Your task to perform on an android device: Go to network settings Image 0: 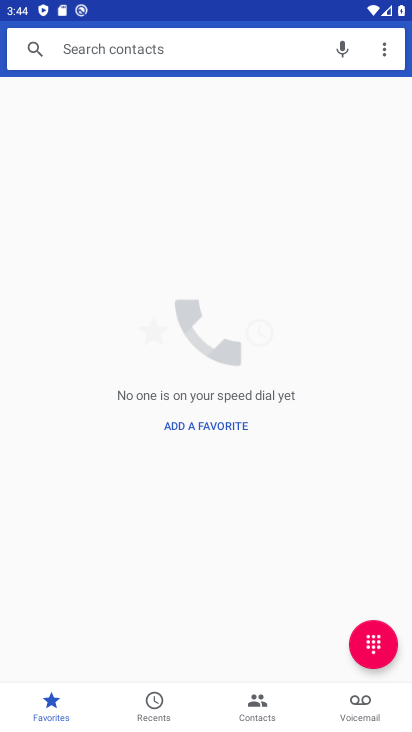
Step 0: press home button
Your task to perform on an android device: Go to network settings Image 1: 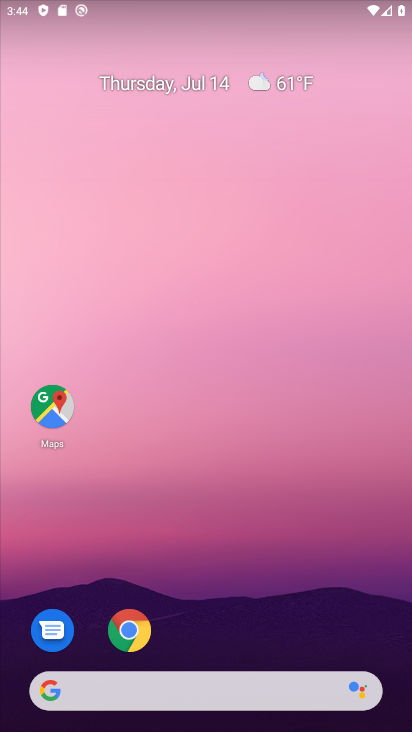
Step 1: drag from (256, 626) to (175, 60)
Your task to perform on an android device: Go to network settings Image 2: 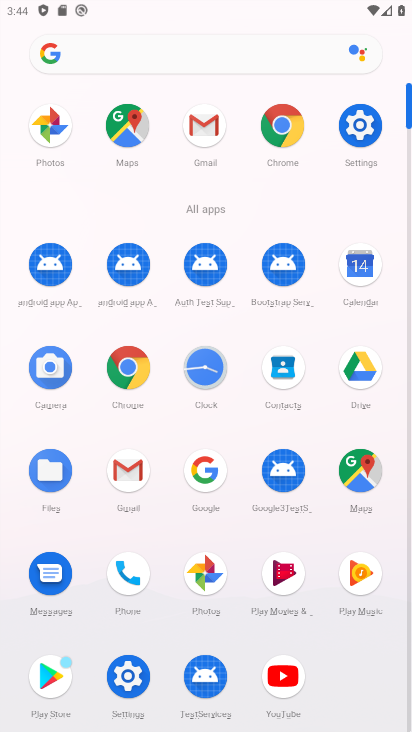
Step 2: click (369, 131)
Your task to perform on an android device: Go to network settings Image 3: 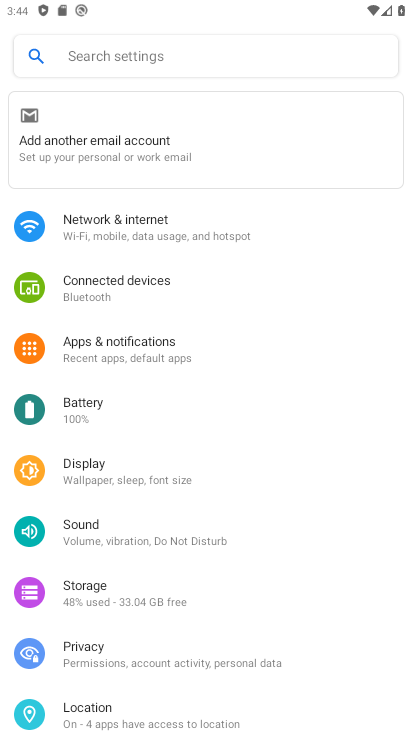
Step 3: click (213, 224)
Your task to perform on an android device: Go to network settings Image 4: 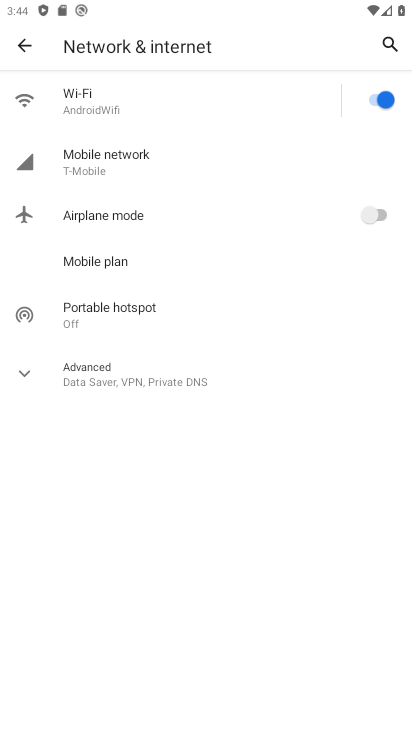
Step 4: task complete